Your task to perform on an android device: Go to battery settings Image 0: 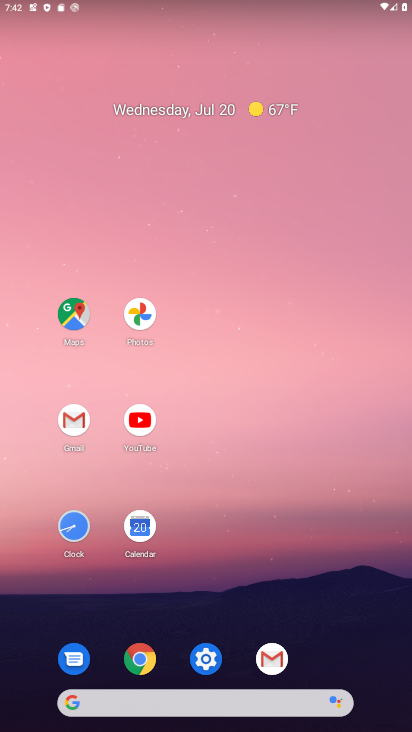
Step 0: click (205, 655)
Your task to perform on an android device: Go to battery settings Image 1: 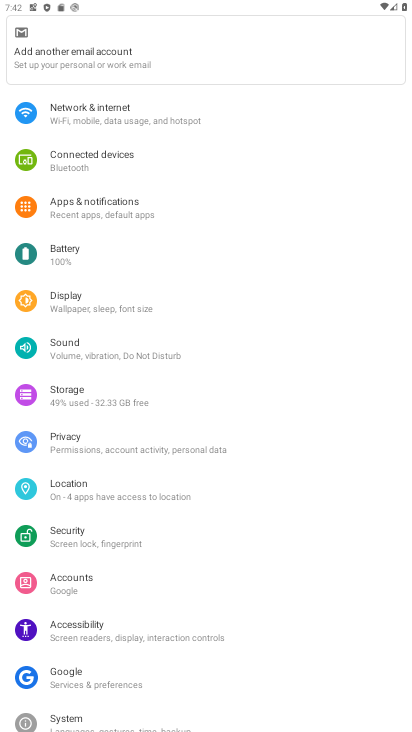
Step 1: click (54, 250)
Your task to perform on an android device: Go to battery settings Image 2: 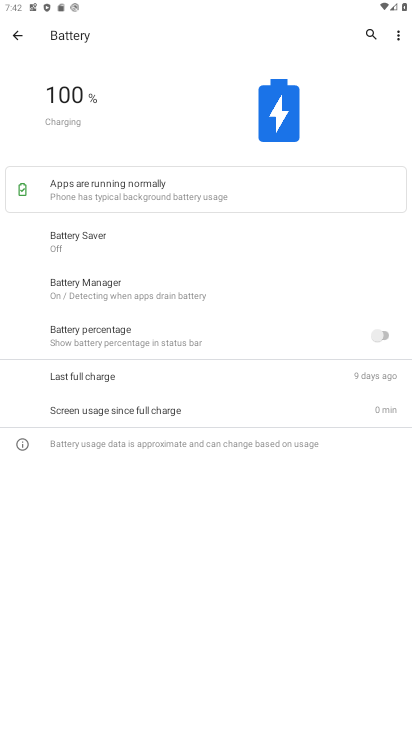
Step 2: task complete